Your task to perform on an android device: Find coffee shops on Maps Image 0: 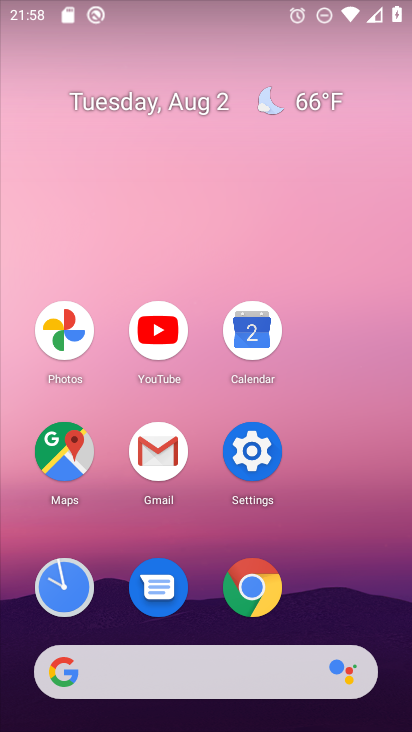
Step 0: click (58, 444)
Your task to perform on an android device: Find coffee shops on Maps Image 1: 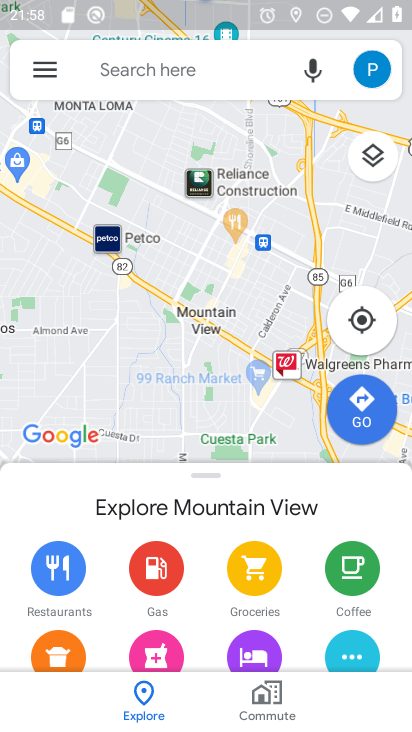
Step 1: click (148, 80)
Your task to perform on an android device: Find coffee shops on Maps Image 2: 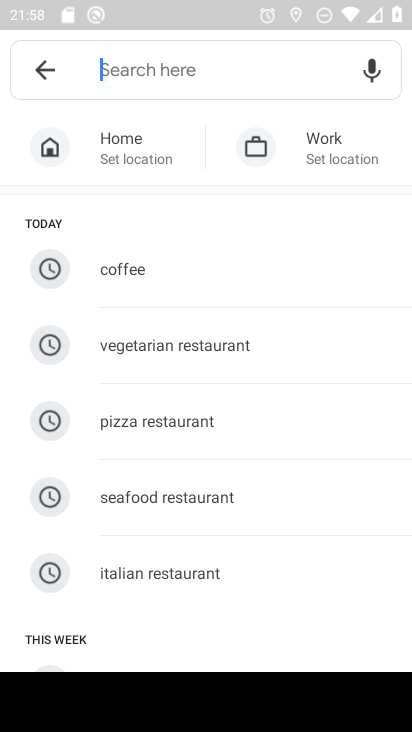
Step 2: click (112, 273)
Your task to perform on an android device: Find coffee shops on Maps Image 3: 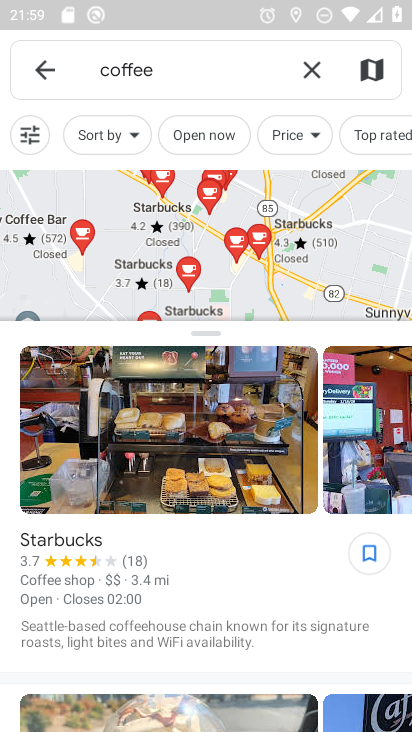
Step 3: task complete